Your task to perform on an android device: toggle location history Image 0: 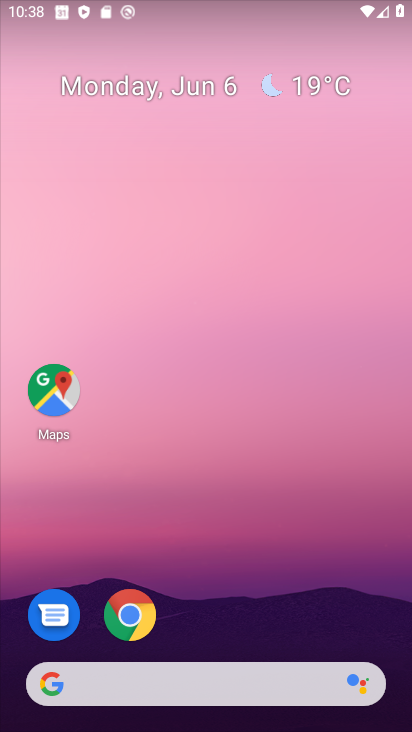
Step 0: drag from (243, 645) to (208, 194)
Your task to perform on an android device: toggle location history Image 1: 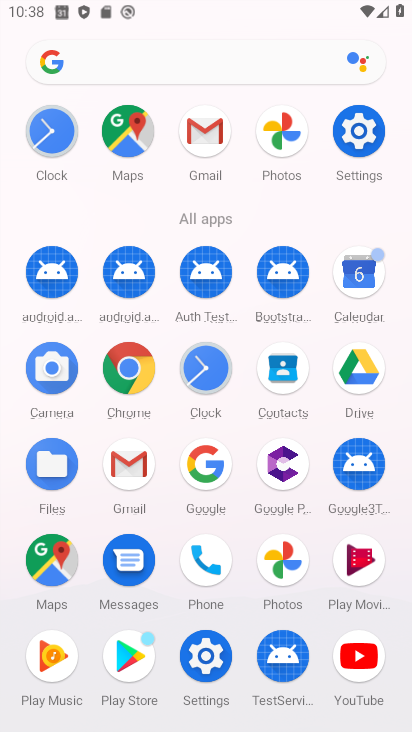
Step 1: click (352, 161)
Your task to perform on an android device: toggle location history Image 2: 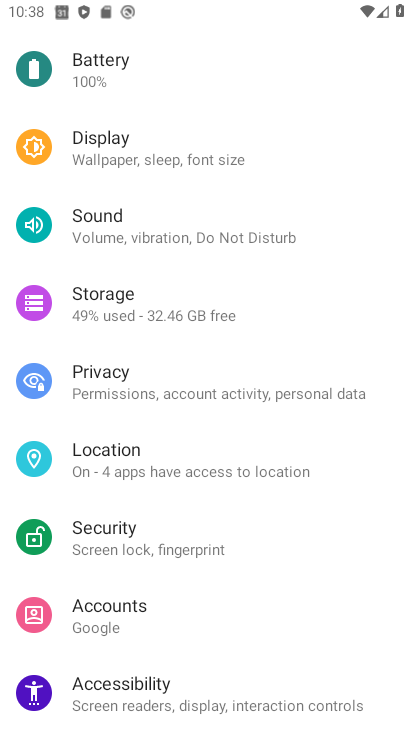
Step 2: click (217, 477)
Your task to perform on an android device: toggle location history Image 3: 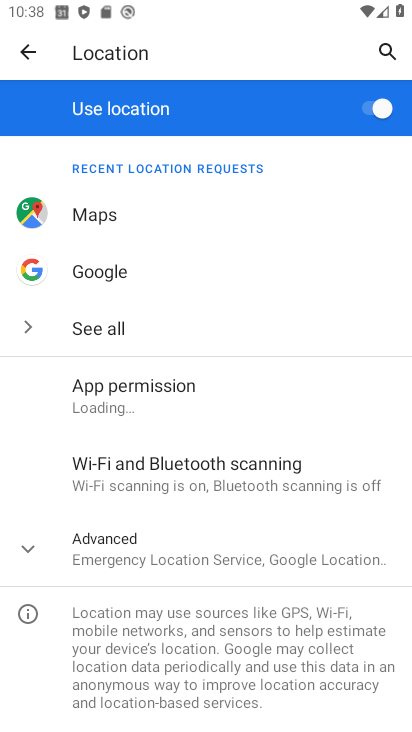
Step 3: task complete